Your task to perform on an android device: Go to Wikipedia Image 0: 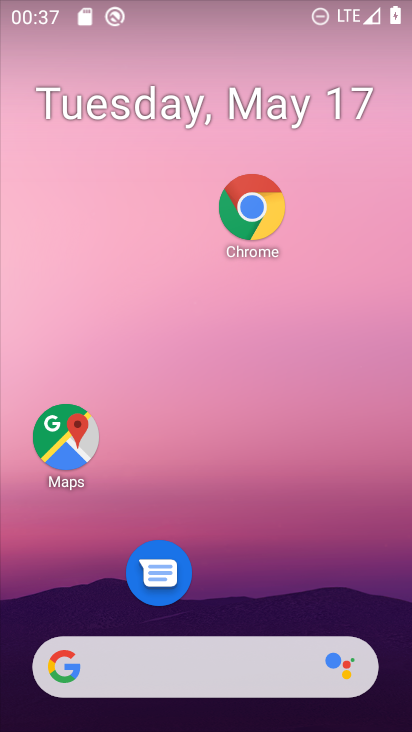
Step 0: drag from (241, 653) to (214, 115)
Your task to perform on an android device: Go to Wikipedia Image 1: 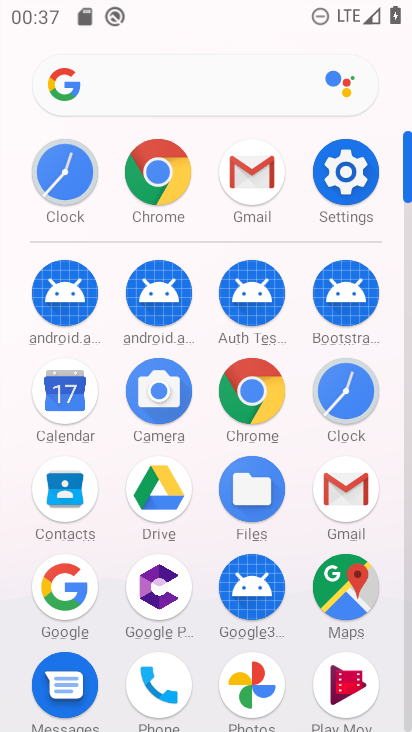
Step 1: click (245, 392)
Your task to perform on an android device: Go to Wikipedia Image 2: 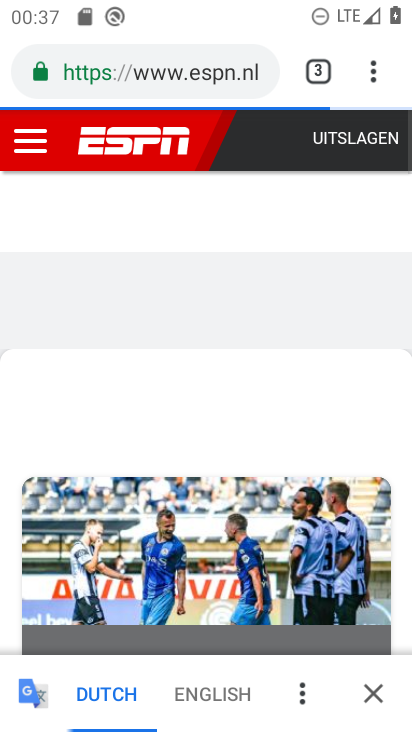
Step 2: click (193, 72)
Your task to perform on an android device: Go to Wikipedia Image 3: 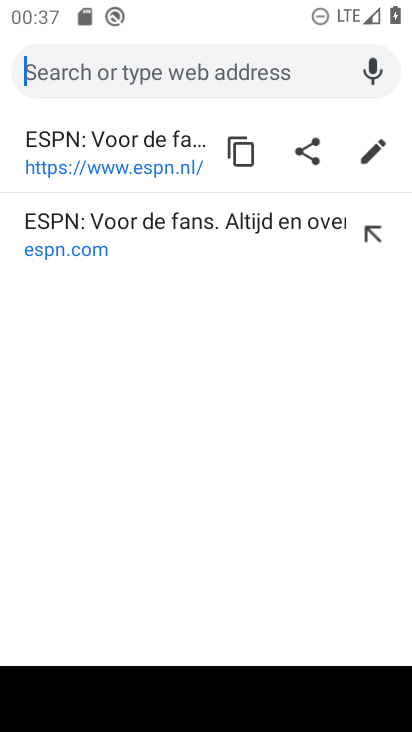
Step 3: type "wikipedia"
Your task to perform on an android device: Go to Wikipedia Image 4: 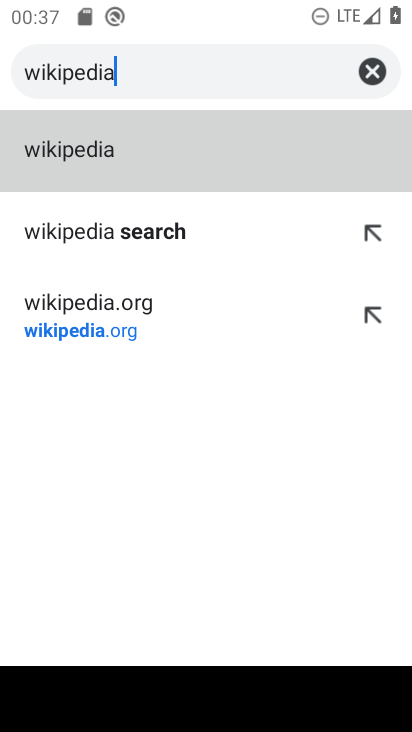
Step 4: click (196, 146)
Your task to perform on an android device: Go to Wikipedia Image 5: 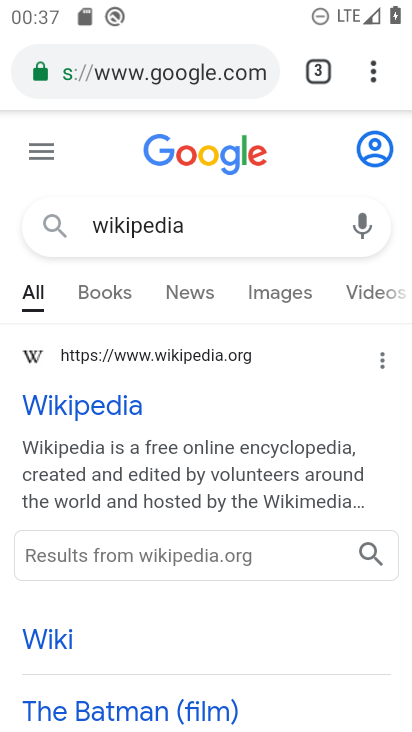
Step 5: task complete